Your task to perform on an android device: Open the calendar app, open the side menu, and click the "Day" option Image 0: 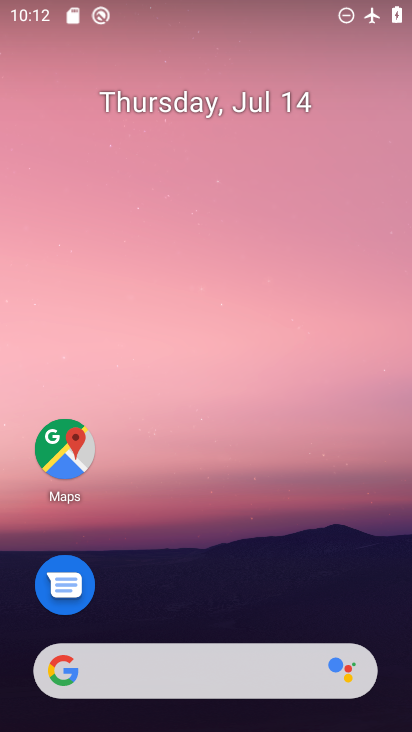
Step 0: drag from (207, 606) to (167, 17)
Your task to perform on an android device: Open the calendar app, open the side menu, and click the "Day" option Image 1: 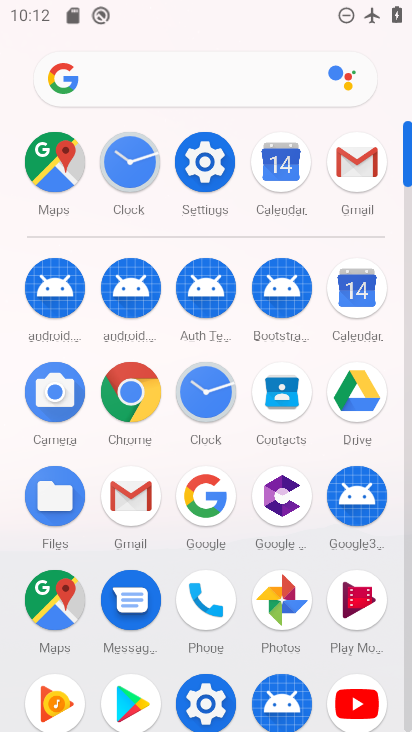
Step 1: click (337, 299)
Your task to perform on an android device: Open the calendar app, open the side menu, and click the "Day" option Image 2: 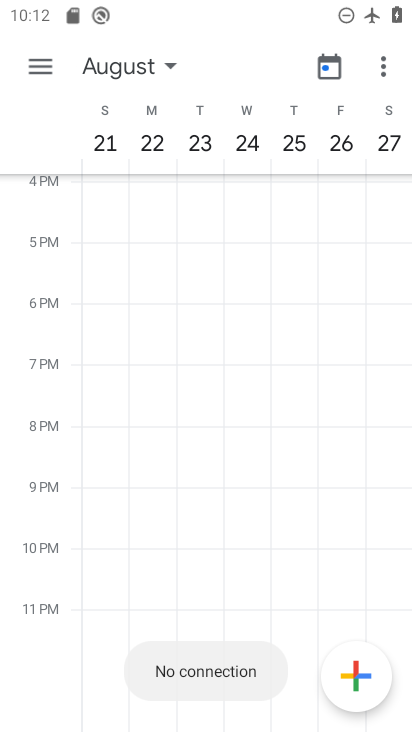
Step 2: click (40, 59)
Your task to perform on an android device: Open the calendar app, open the side menu, and click the "Day" option Image 3: 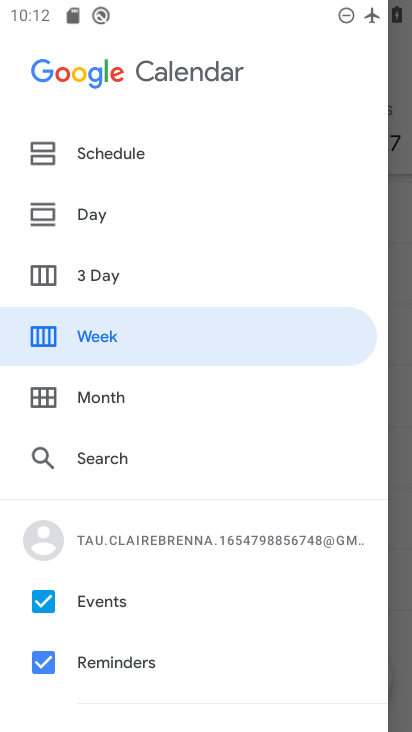
Step 3: click (83, 198)
Your task to perform on an android device: Open the calendar app, open the side menu, and click the "Day" option Image 4: 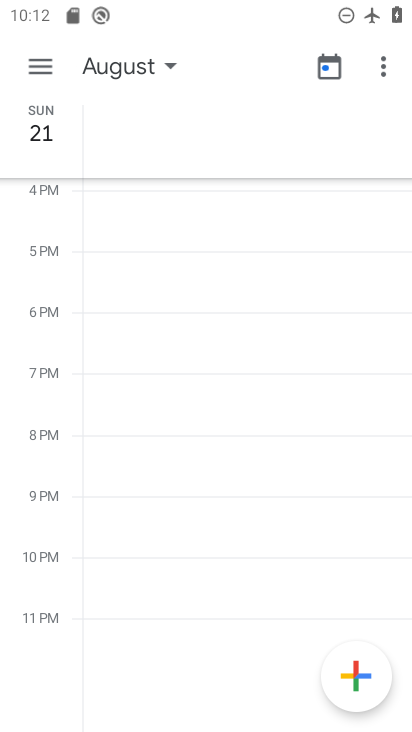
Step 4: task complete